Your task to perform on an android device: choose inbox layout in the gmail app Image 0: 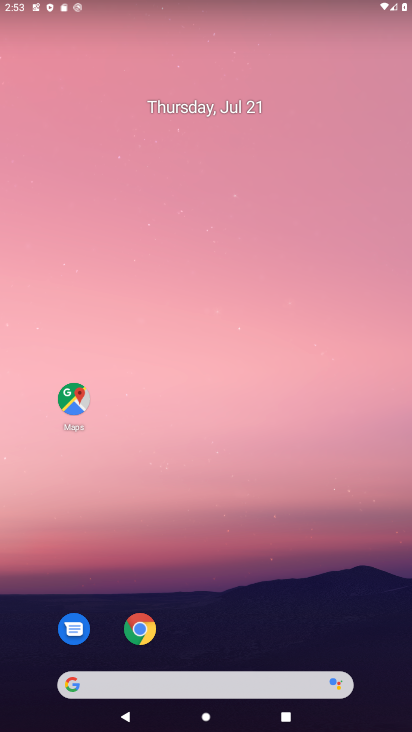
Step 0: drag from (402, 691) to (316, 51)
Your task to perform on an android device: choose inbox layout in the gmail app Image 1: 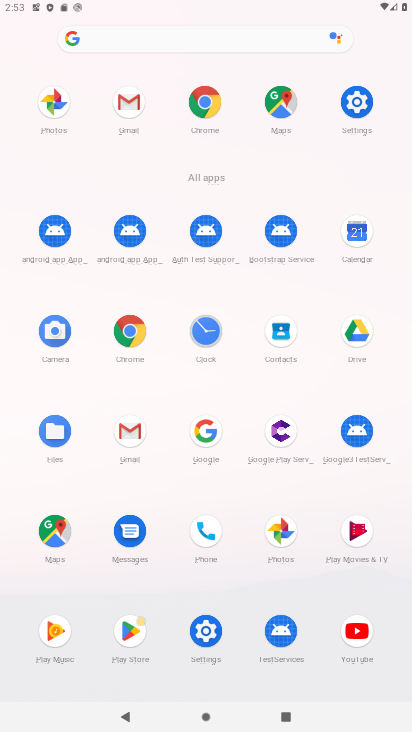
Step 1: click (132, 435)
Your task to perform on an android device: choose inbox layout in the gmail app Image 2: 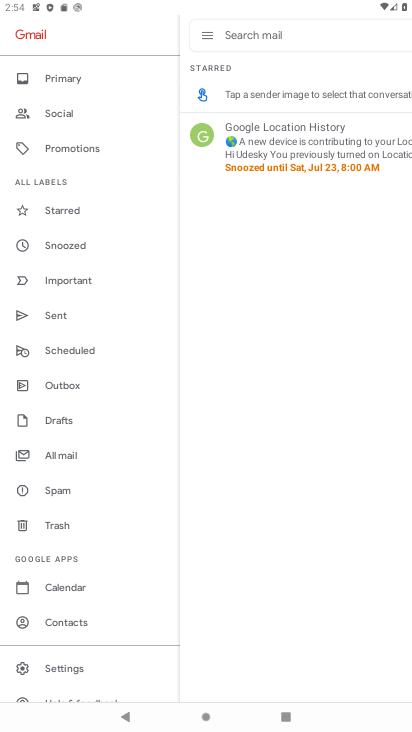
Step 2: click (41, 662)
Your task to perform on an android device: choose inbox layout in the gmail app Image 3: 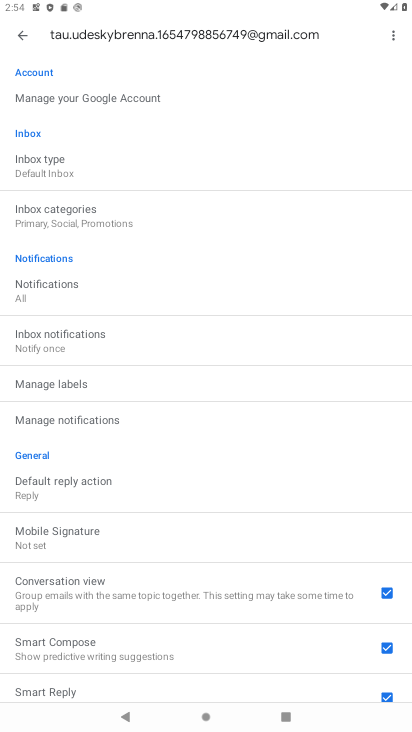
Step 3: click (38, 166)
Your task to perform on an android device: choose inbox layout in the gmail app Image 4: 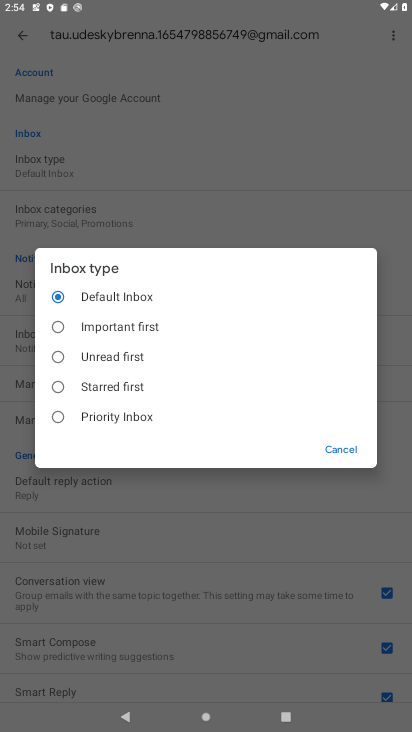
Step 4: click (95, 361)
Your task to perform on an android device: choose inbox layout in the gmail app Image 5: 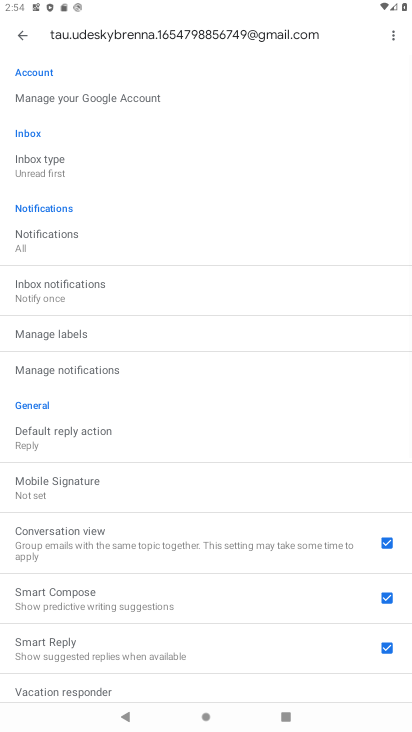
Step 5: task complete